Your task to perform on an android device: What's the weather today? Image 0: 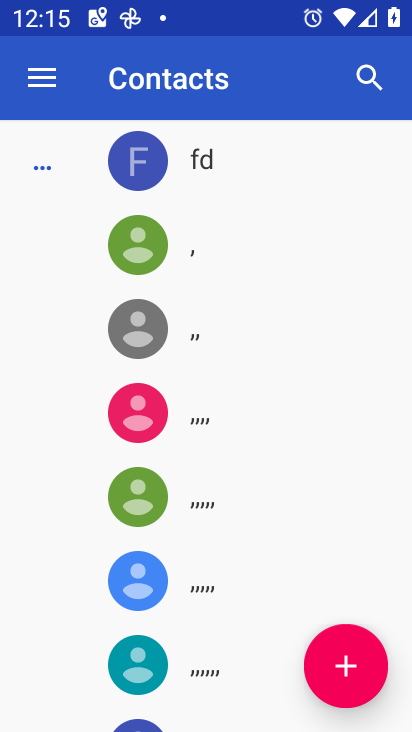
Step 0: press home button
Your task to perform on an android device: What's the weather today? Image 1: 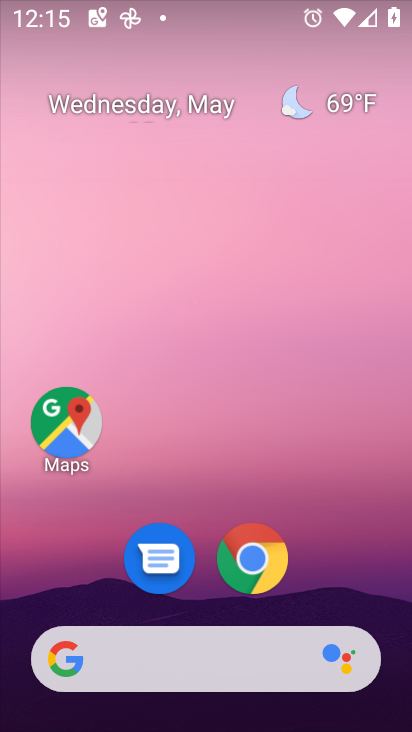
Step 1: drag from (394, 657) to (264, 2)
Your task to perform on an android device: What's the weather today? Image 2: 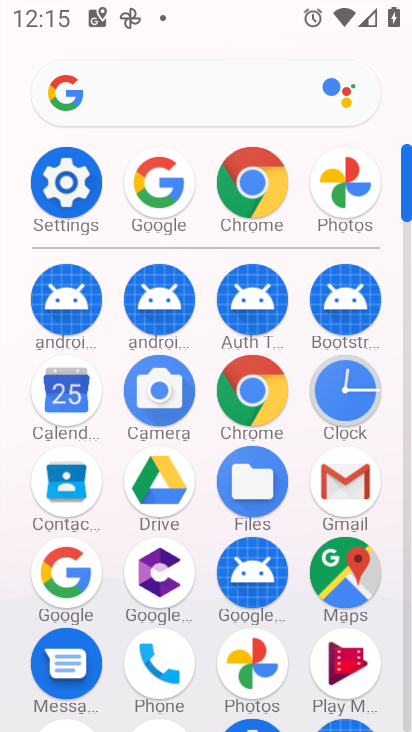
Step 2: click (64, 578)
Your task to perform on an android device: What's the weather today? Image 3: 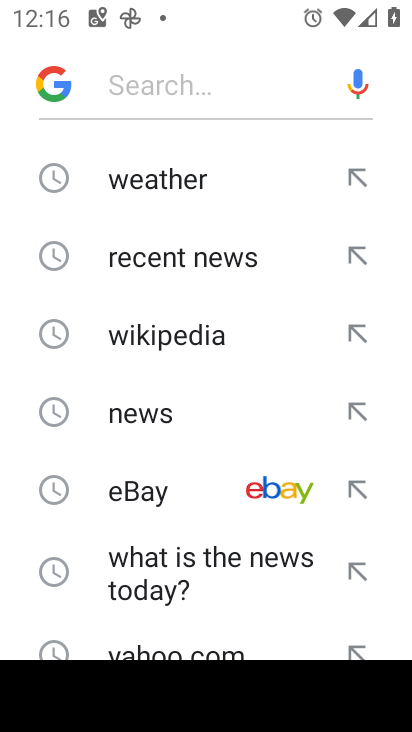
Step 3: drag from (183, 600) to (200, 181)
Your task to perform on an android device: What's the weather today? Image 4: 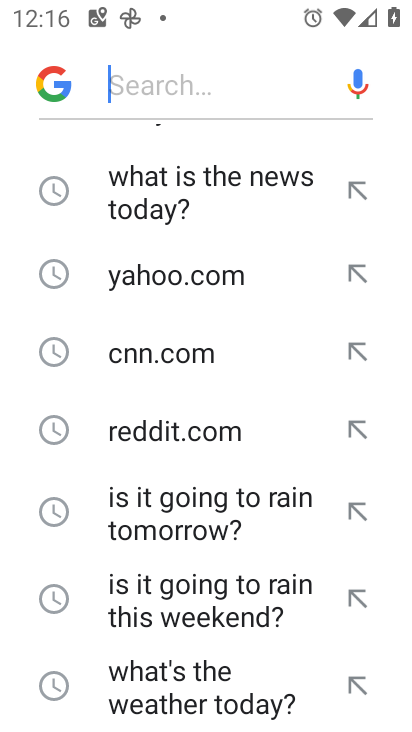
Step 4: click (199, 692)
Your task to perform on an android device: What's the weather today? Image 5: 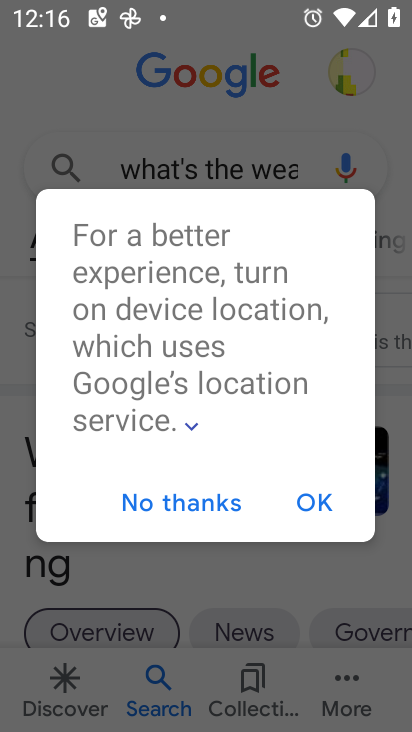
Step 5: click (189, 505)
Your task to perform on an android device: What's the weather today? Image 6: 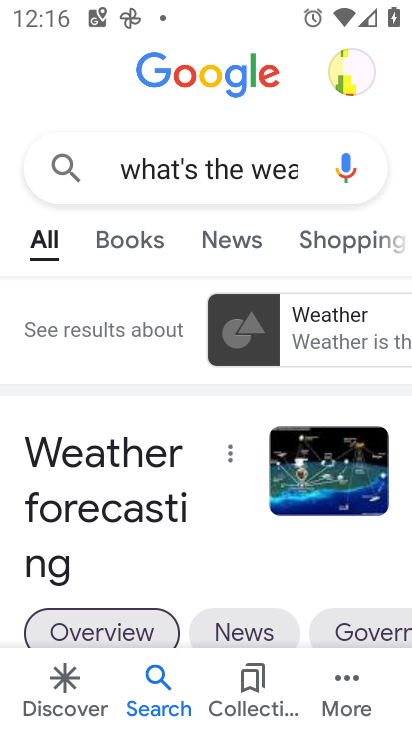
Step 6: task complete